Your task to perform on an android device: open app "The Home Depot" Image 0: 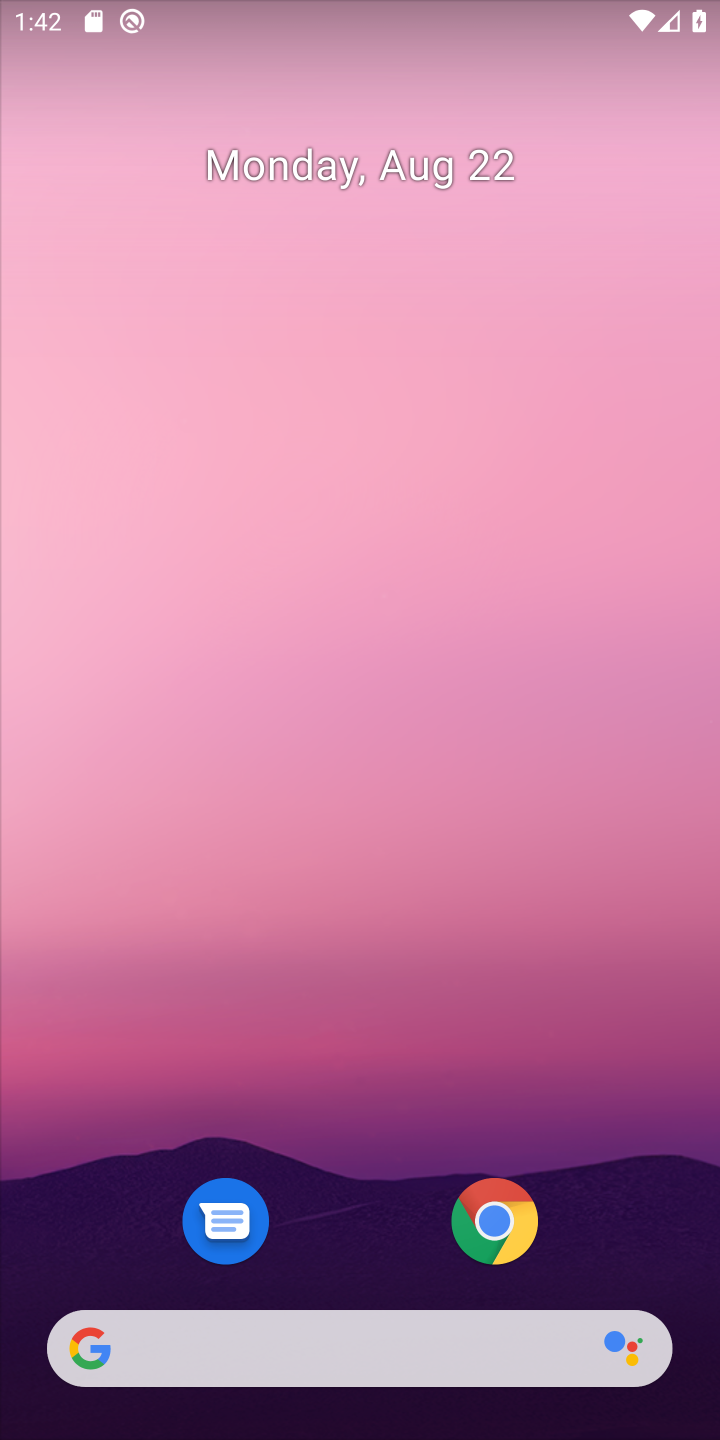
Step 0: drag from (343, 1223) to (338, 84)
Your task to perform on an android device: open app "The Home Depot" Image 1: 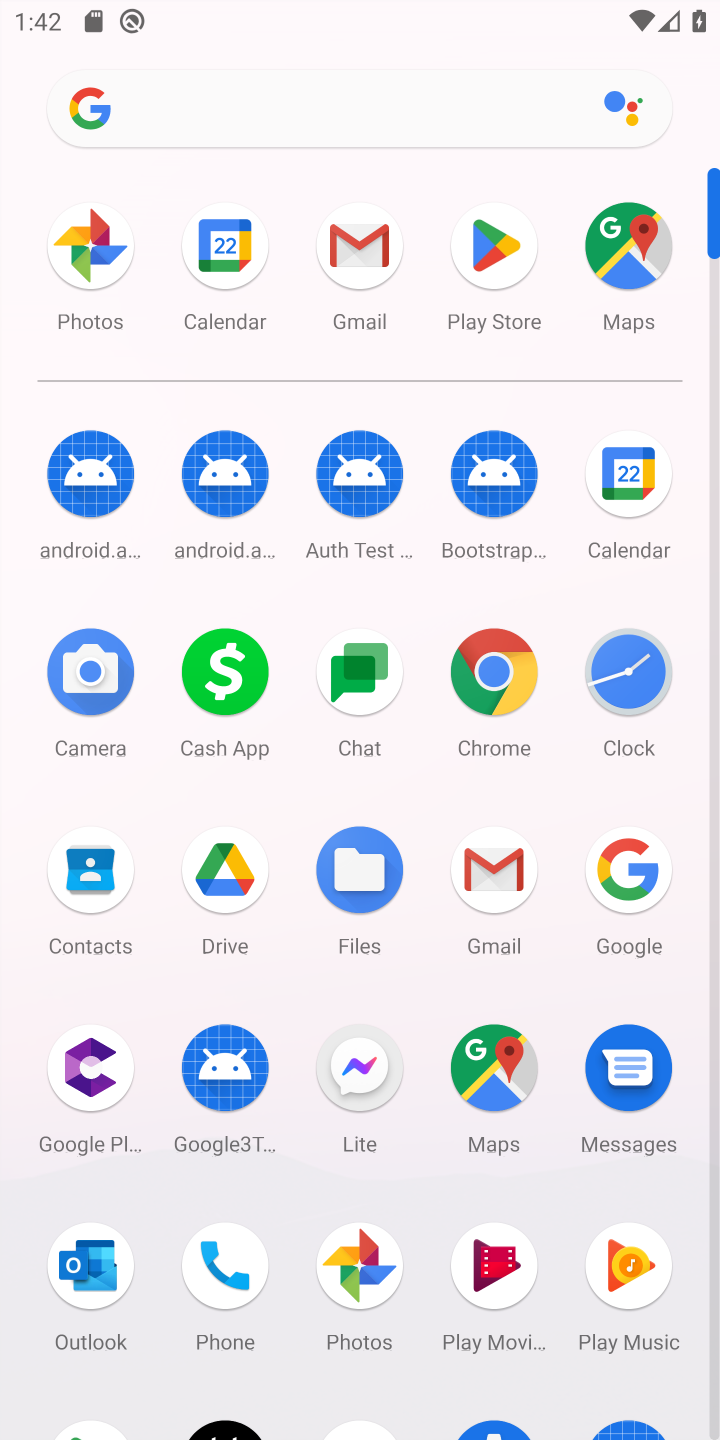
Step 1: click (487, 235)
Your task to perform on an android device: open app "The Home Depot" Image 2: 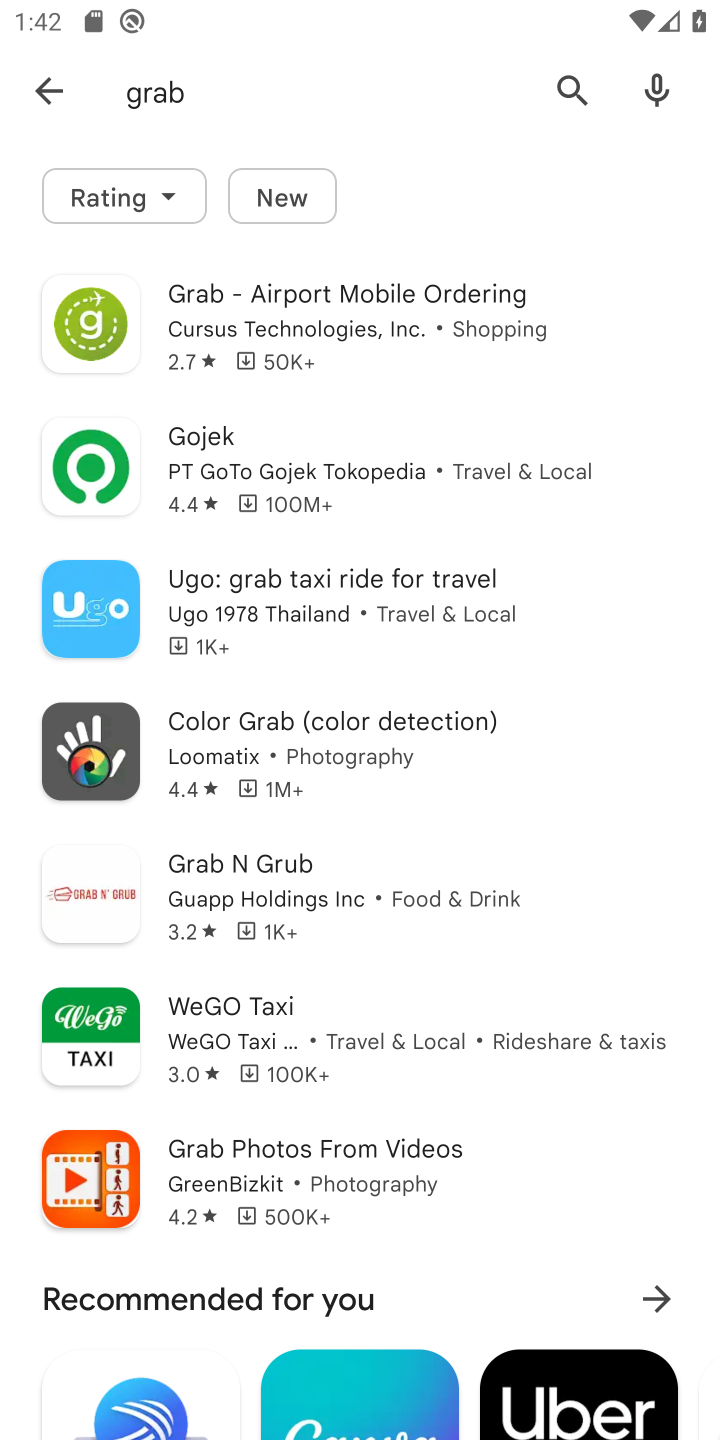
Step 2: click (566, 84)
Your task to perform on an android device: open app "The Home Depot" Image 3: 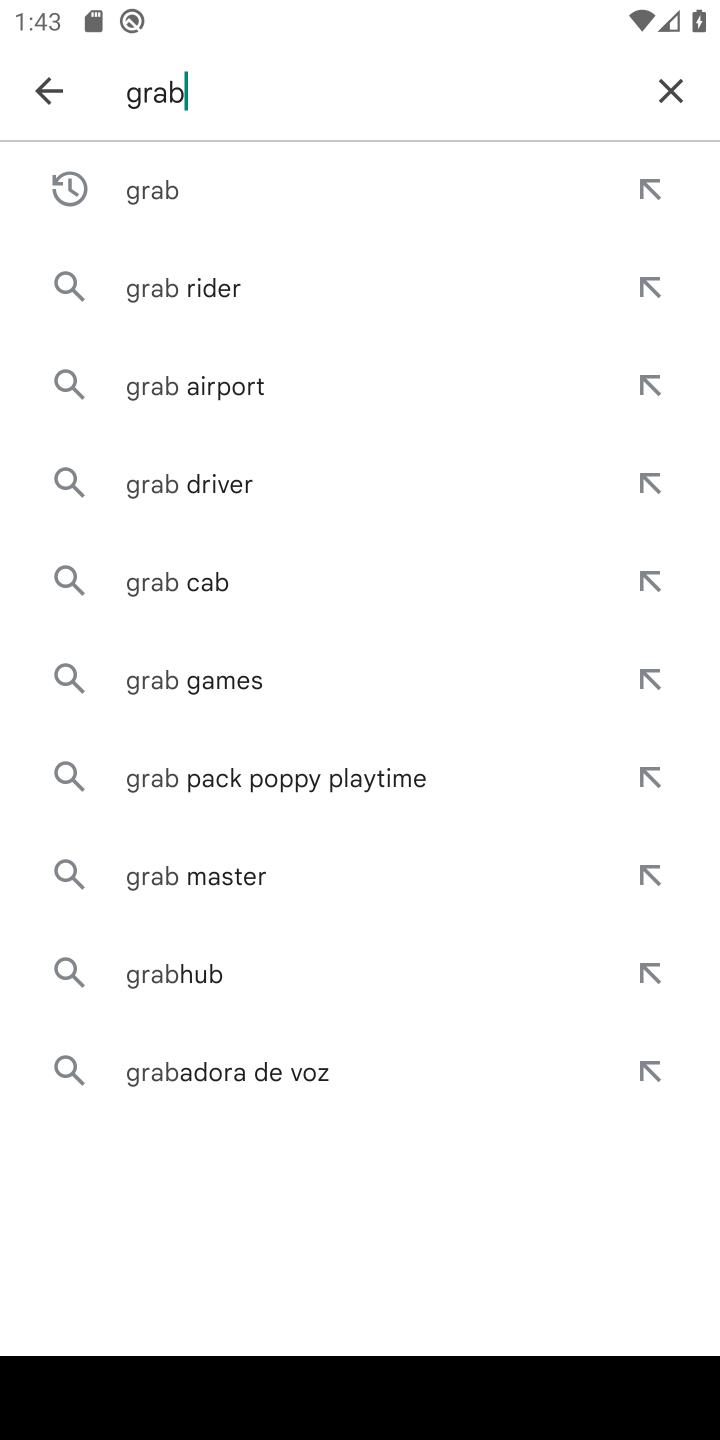
Step 3: click (677, 97)
Your task to perform on an android device: open app "The Home Depot" Image 4: 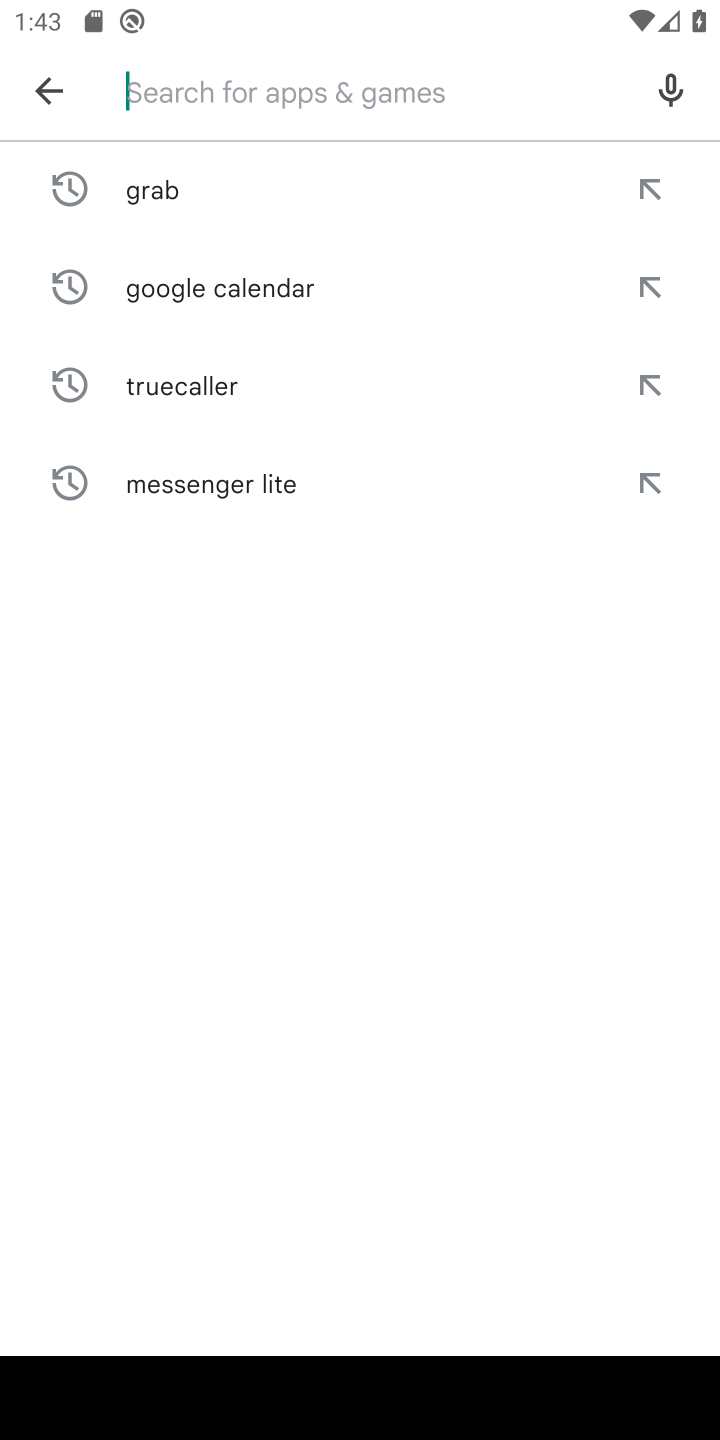
Step 4: click (192, 87)
Your task to perform on an android device: open app "The Home Depot" Image 5: 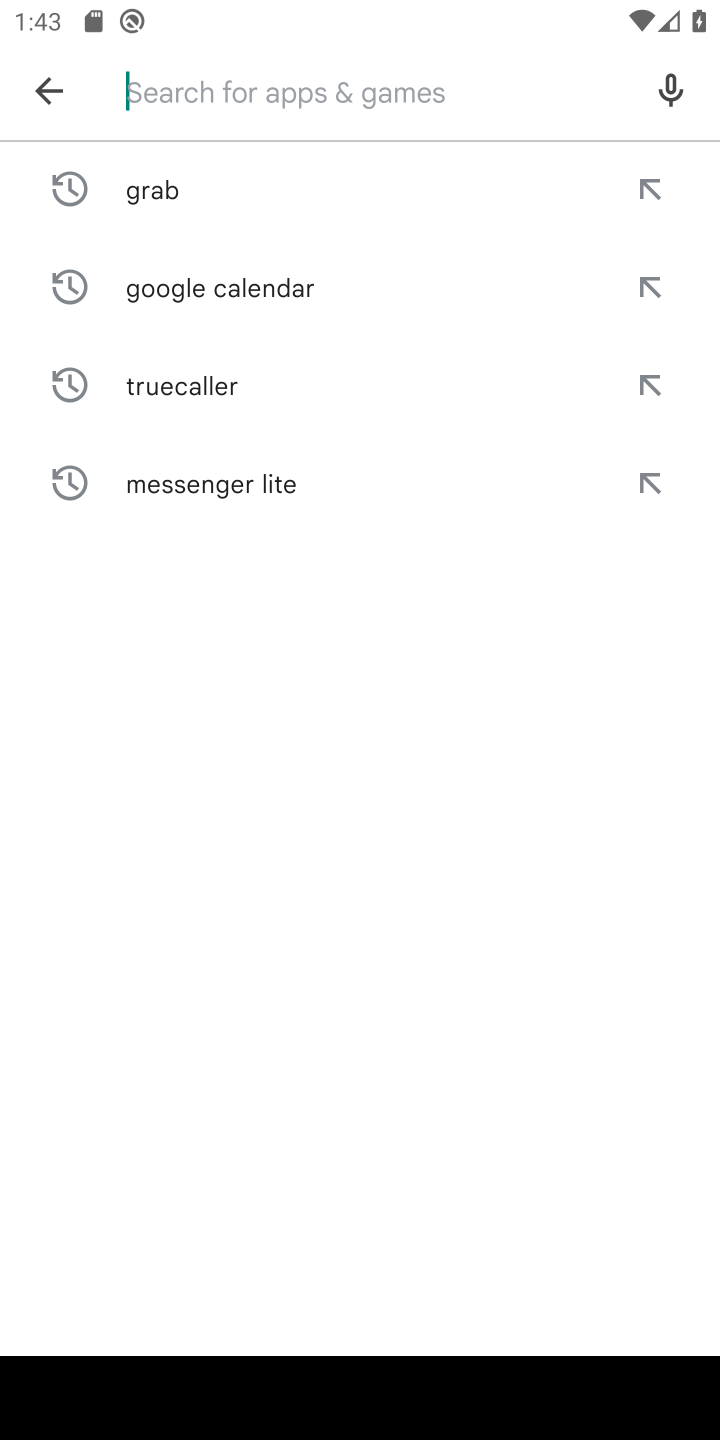
Step 5: type "The Home Depot"
Your task to perform on an android device: open app "The Home Depot" Image 6: 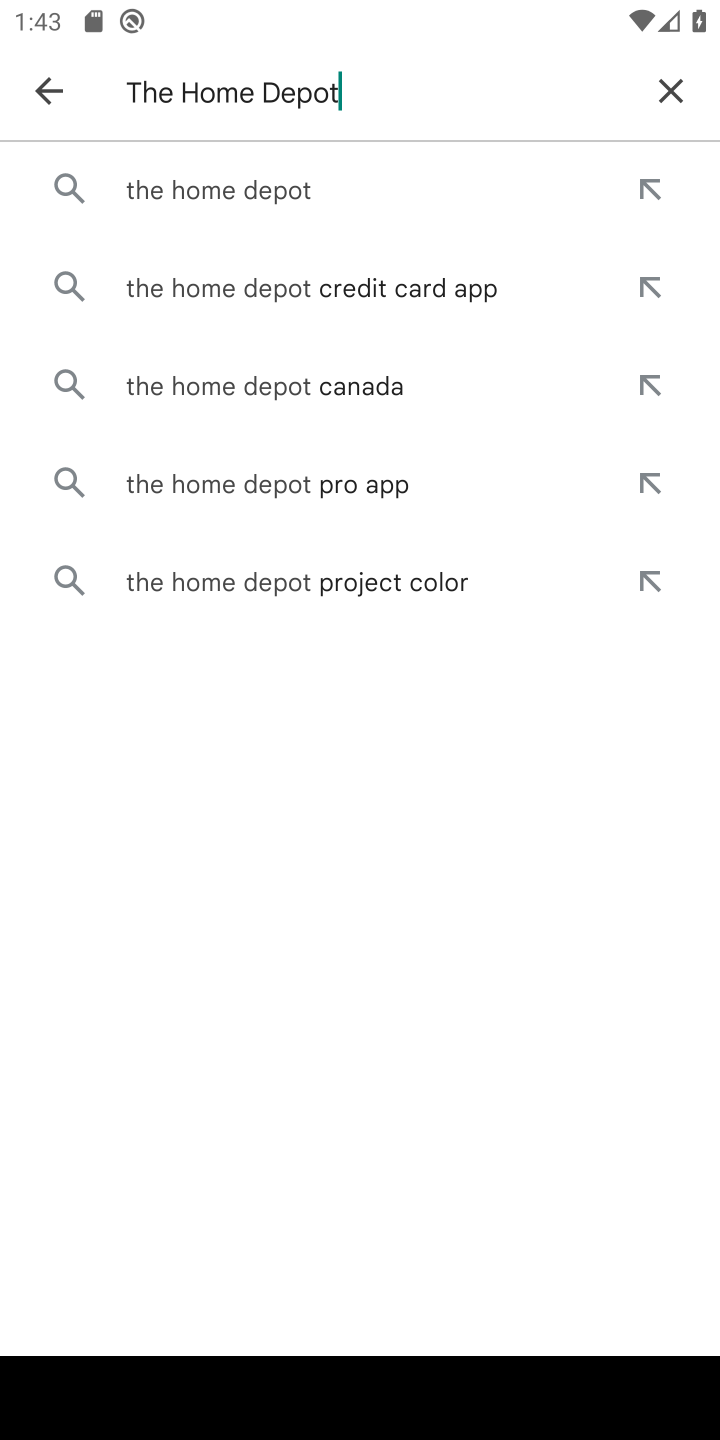
Step 6: click (328, 188)
Your task to perform on an android device: open app "The Home Depot" Image 7: 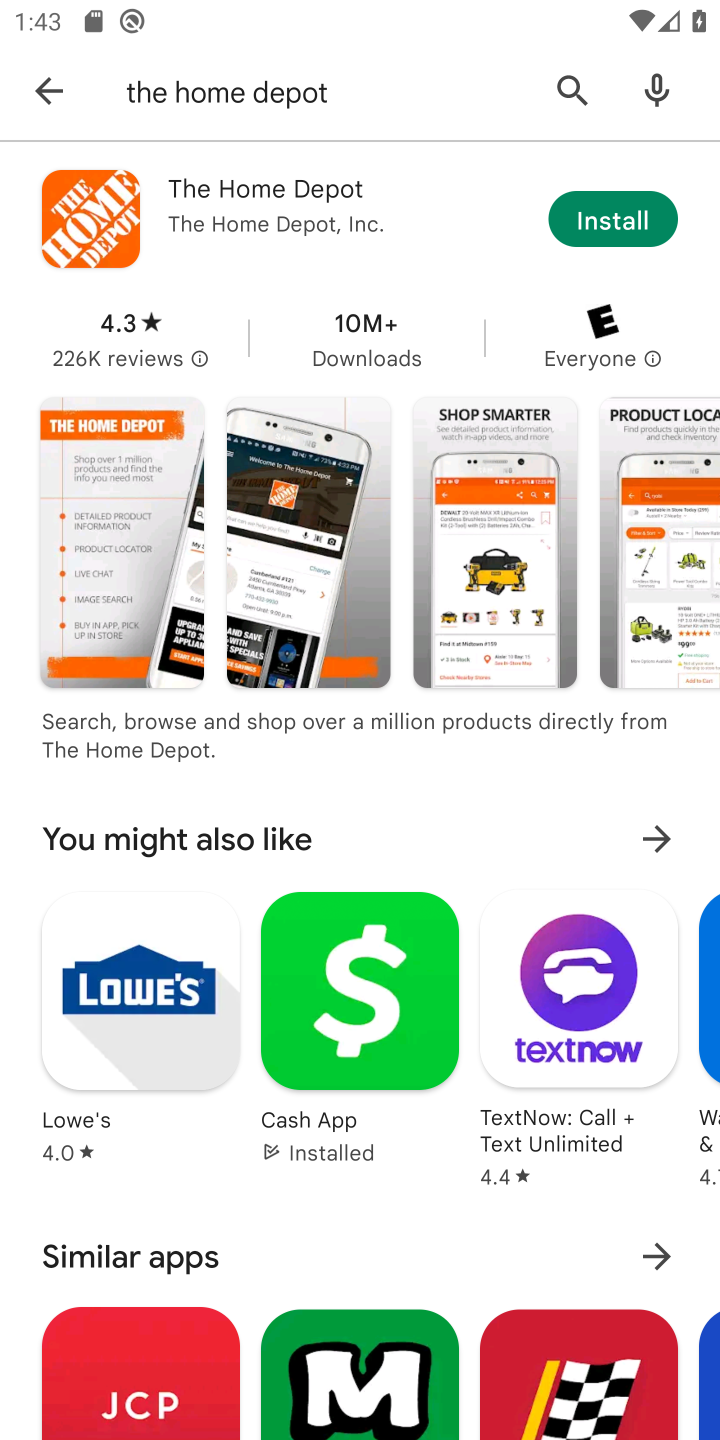
Step 7: task complete